Your task to perform on an android device: toggle location history Image 0: 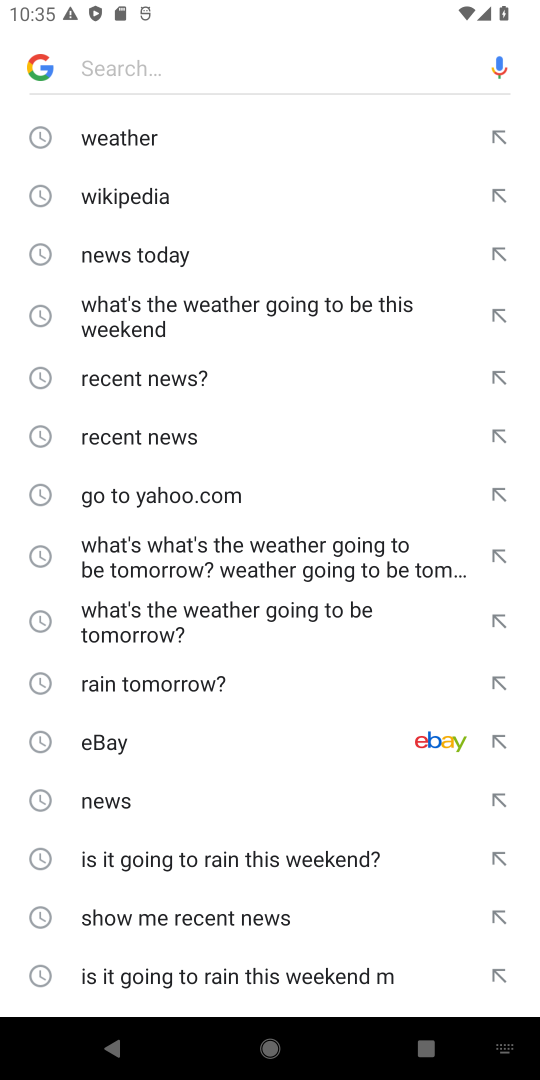
Step 0: press back button
Your task to perform on an android device: toggle location history Image 1: 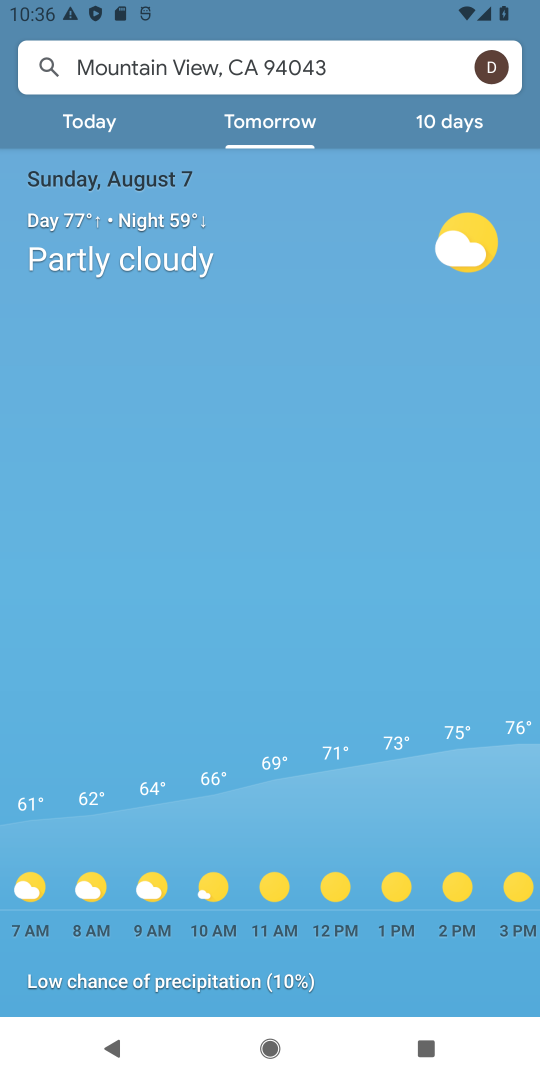
Step 1: press home button
Your task to perform on an android device: toggle location history Image 2: 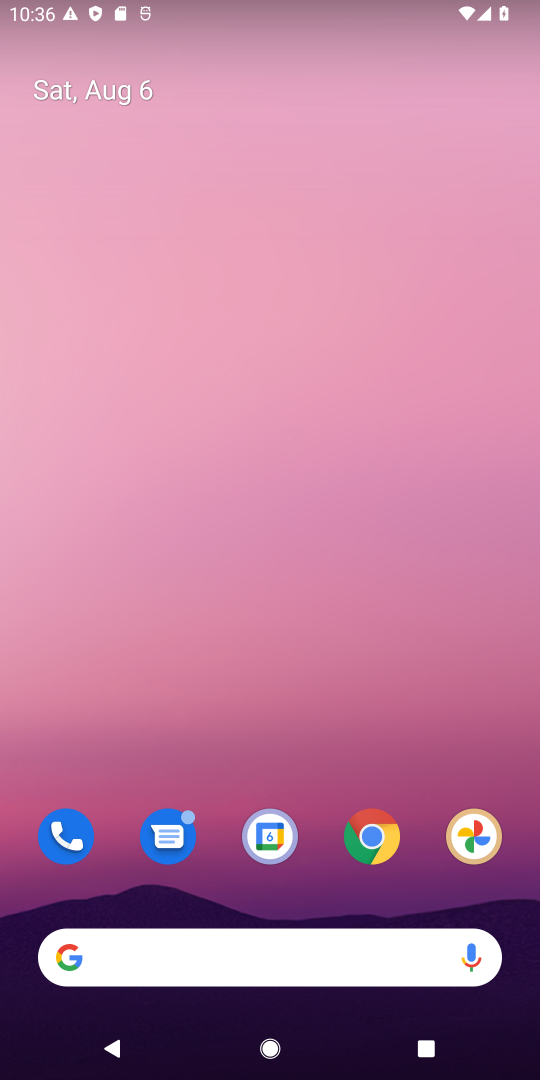
Step 2: drag from (242, 318) to (251, 85)
Your task to perform on an android device: toggle location history Image 3: 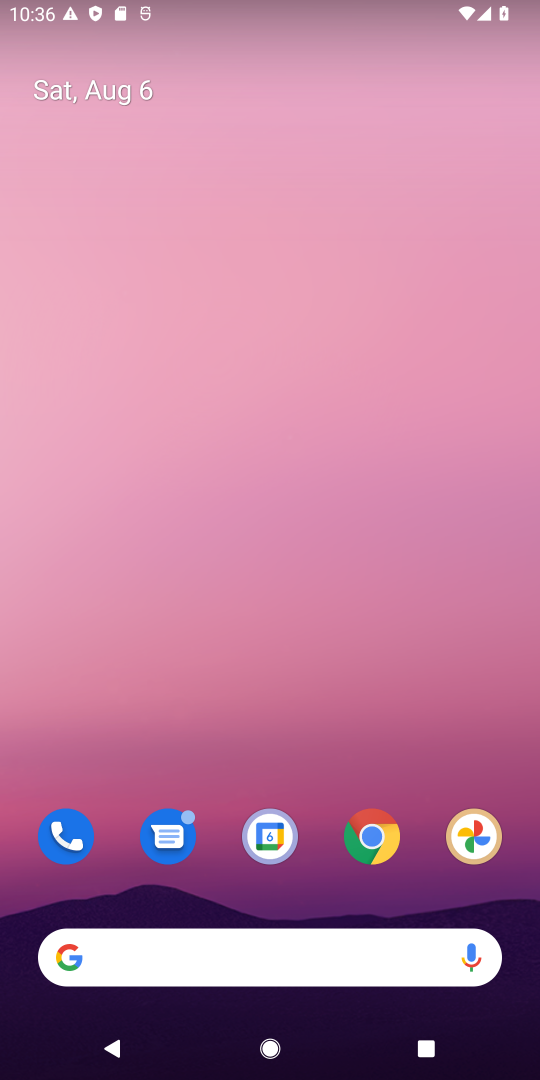
Step 3: drag from (264, 904) to (372, 27)
Your task to perform on an android device: toggle location history Image 4: 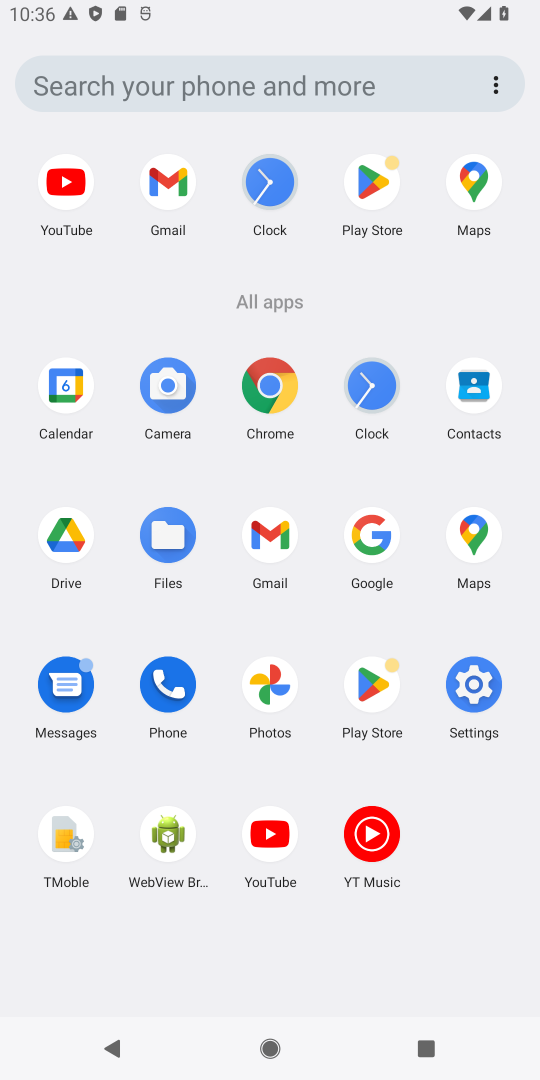
Step 4: click (471, 695)
Your task to perform on an android device: toggle location history Image 5: 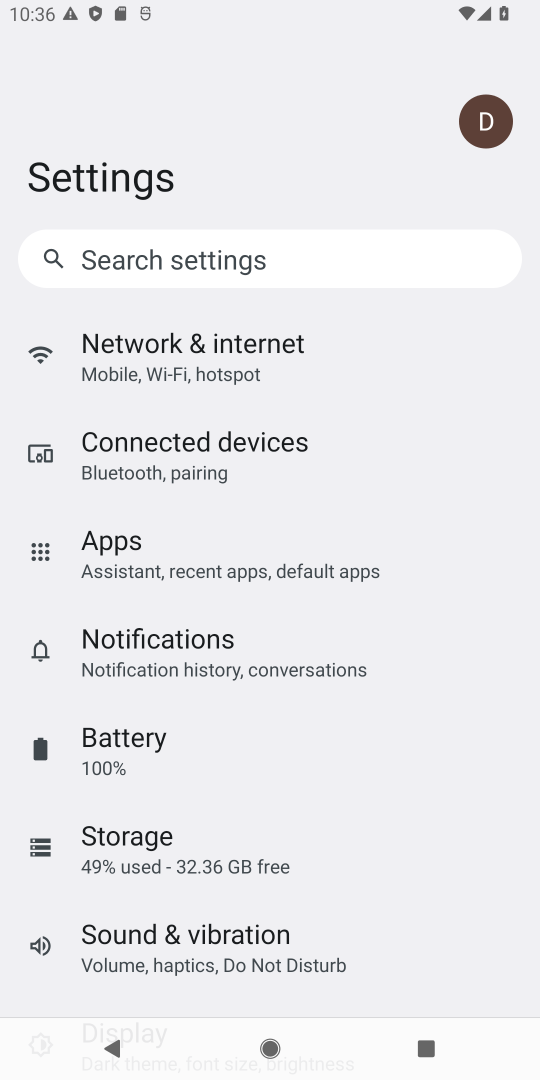
Step 5: drag from (245, 600) to (245, 504)
Your task to perform on an android device: toggle location history Image 6: 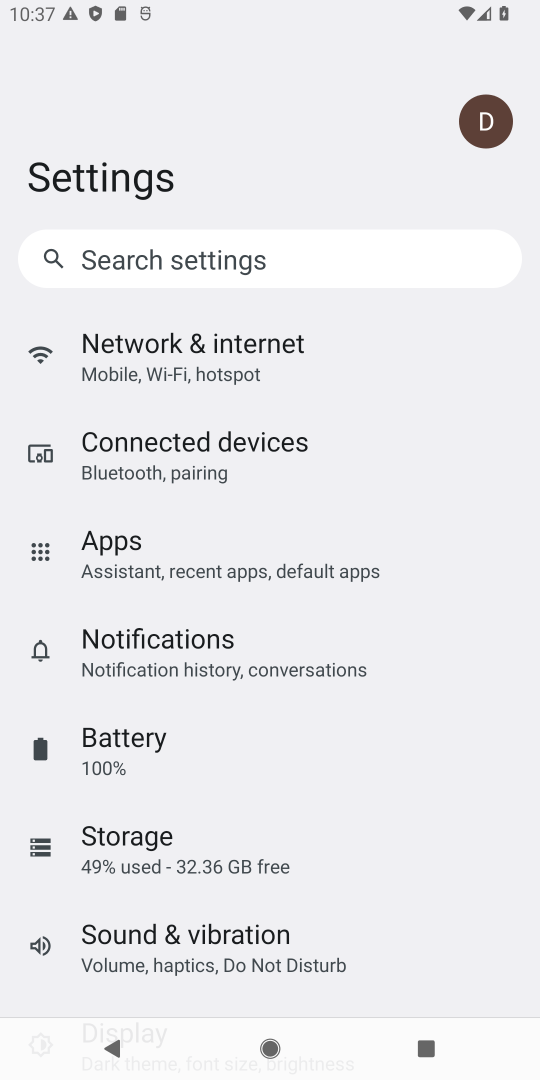
Step 6: drag from (239, 919) to (302, 387)
Your task to perform on an android device: toggle location history Image 7: 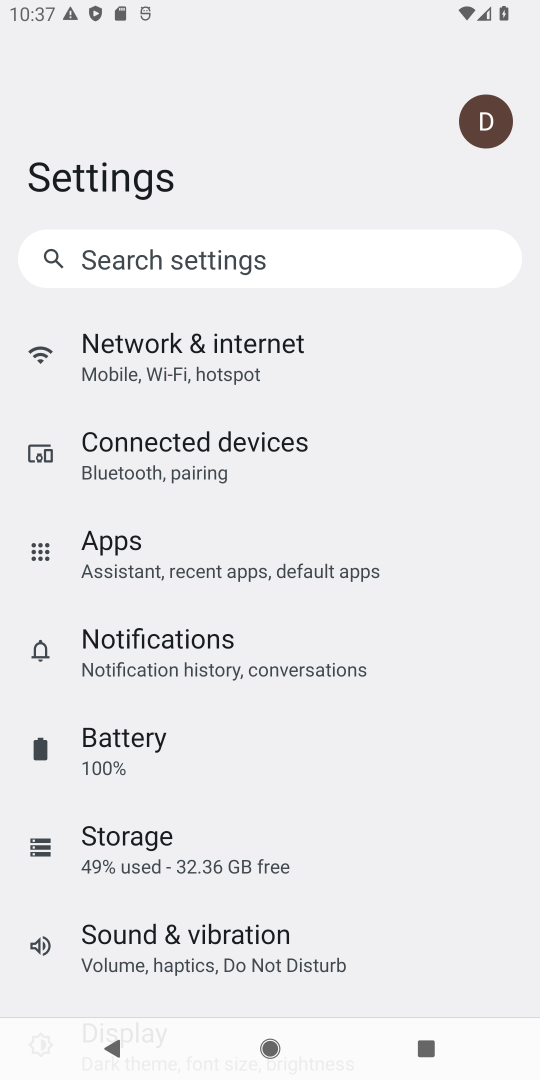
Step 7: drag from (294, 820) to (311, 362)
Your task to perform on an android device: toggle location history Image 8: 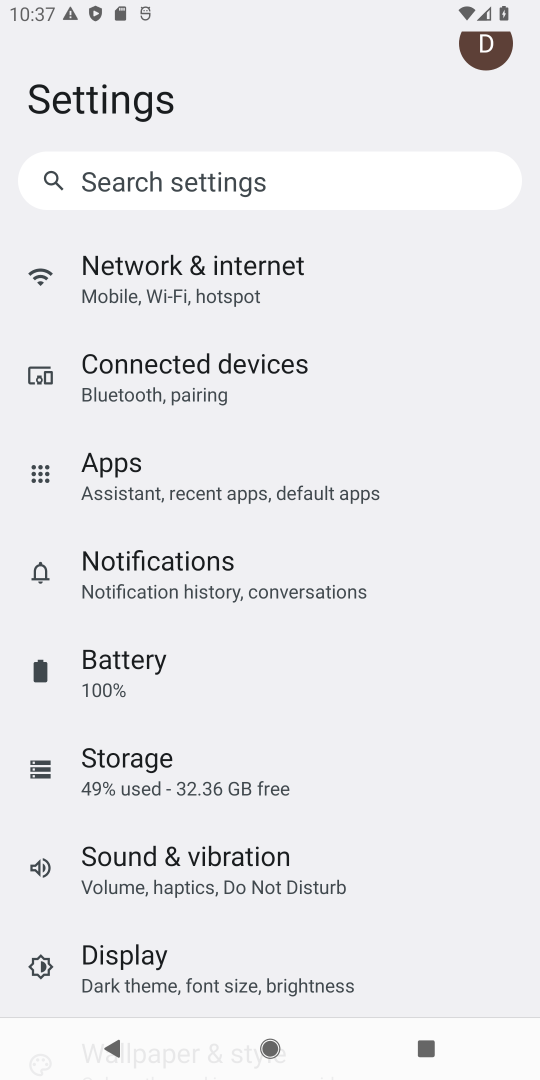
Step 8: drag from (283, 796) to (295, 575)
Your task to perform on an android device: toggle location history Image 9: 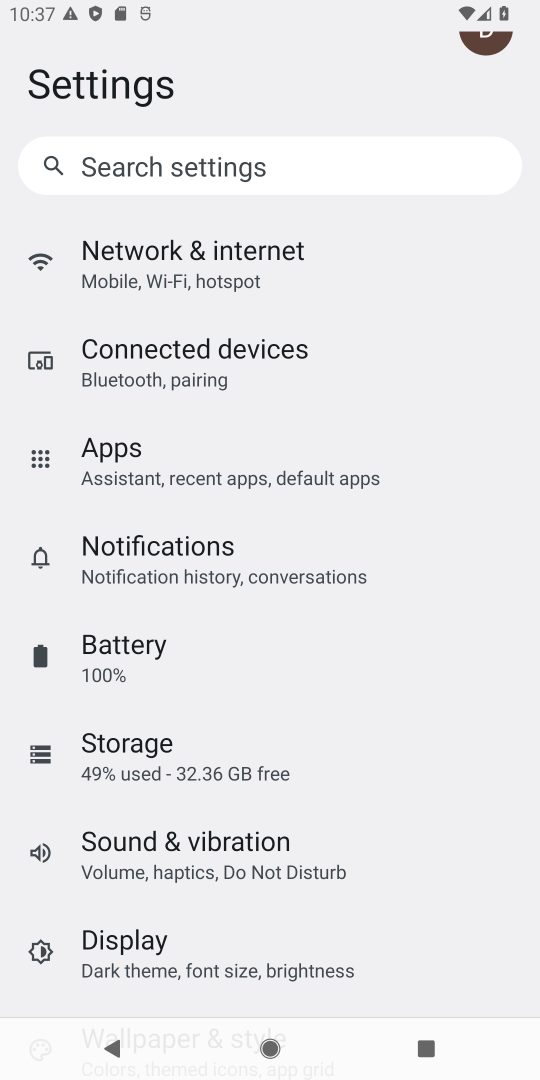
Step 9: drag from (196, 857) to (223, 285)
Your task to perform on an android device: toggle location history Image 10: 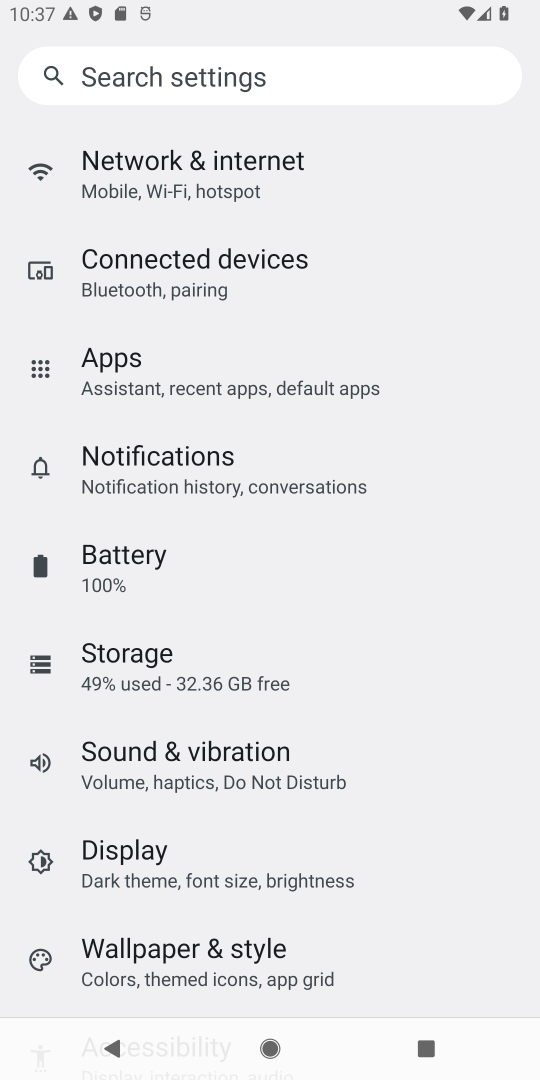
Step 10: drag from (223, 560) to (223, 325)
Your task to perform on an android device: toggle location history Image 11: 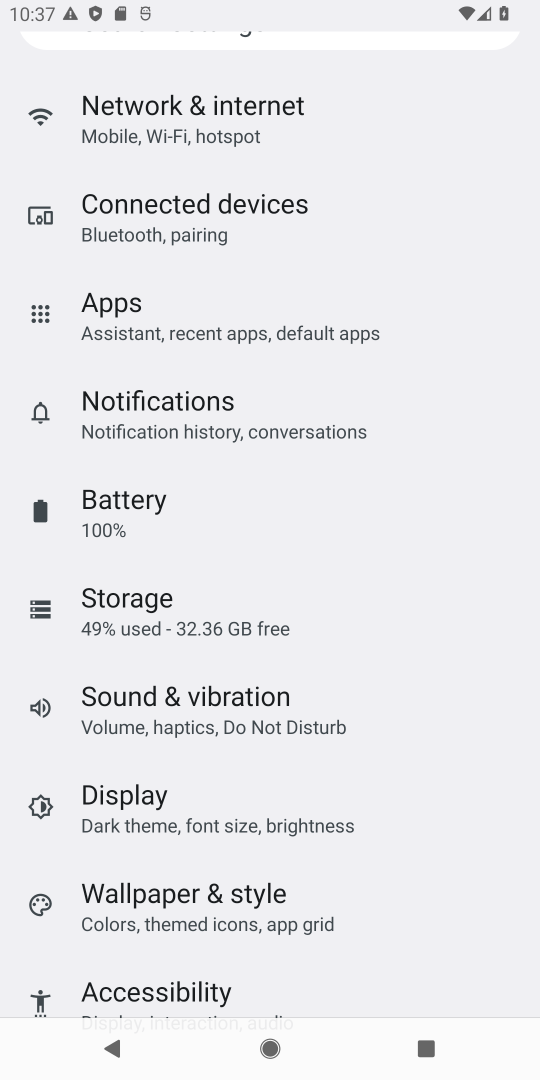
Step 11: drag from (221, 767) to (221, 396)
Your task to perform on an android device: toggle location history Image 12: 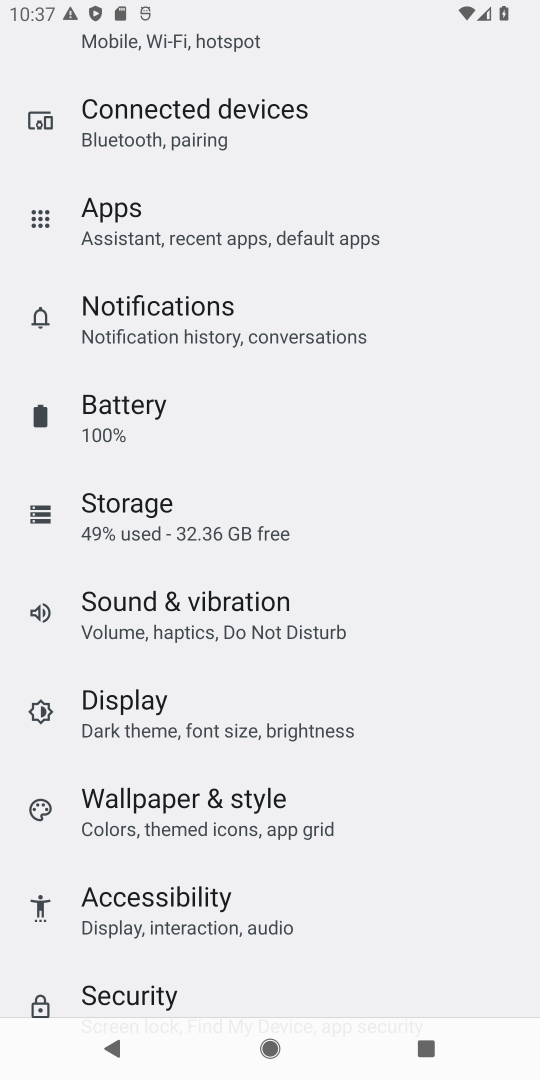
Step 12: drag from (177, 755) to (355, 100)
Your task to perform on an android device: toggle location history Image 13: 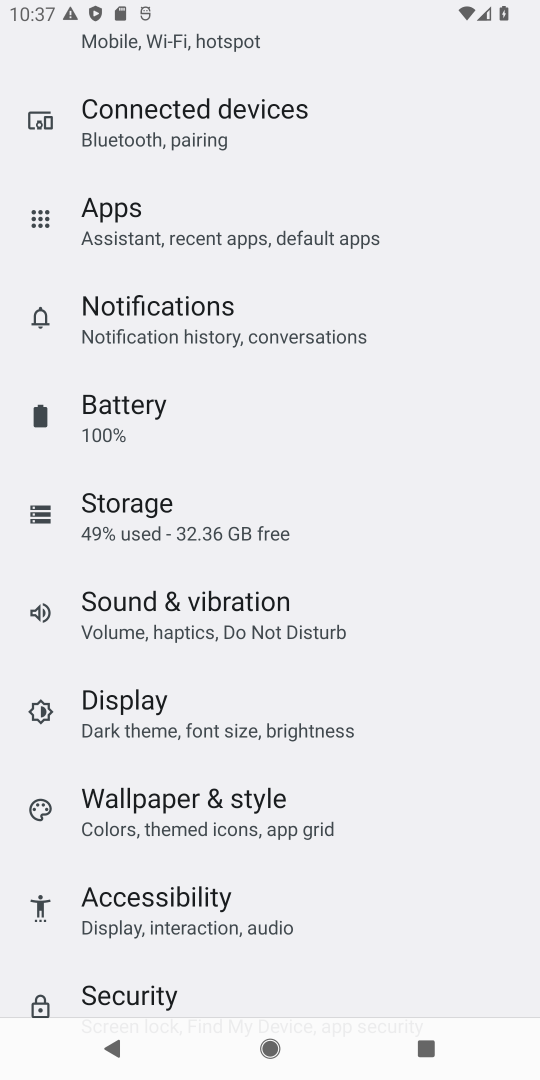
Step 13: drag from (307, 914) to (275, 415)
Your task to perform on an android device: toggle location history Image 14: 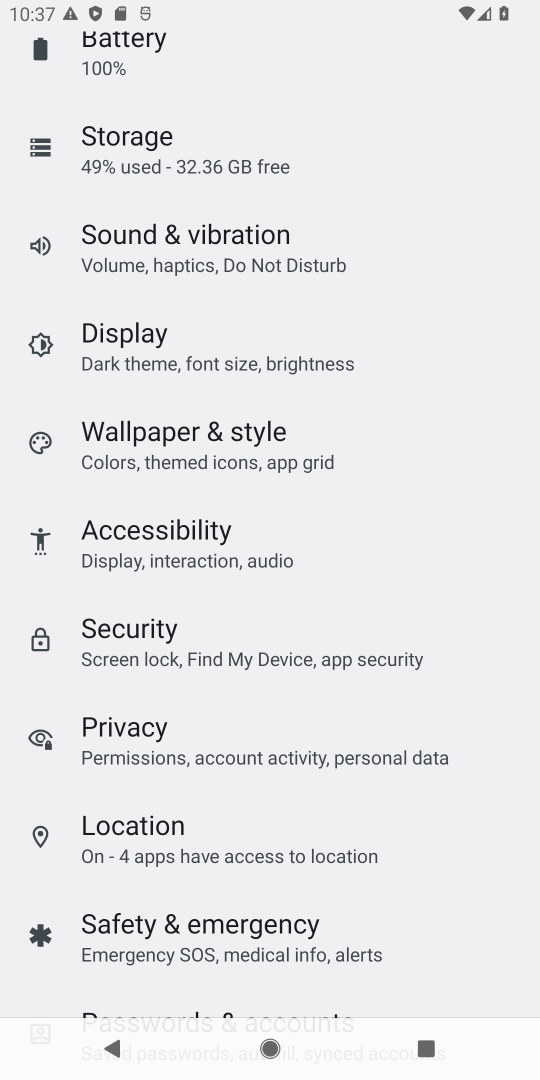
Step 14: click (186, 859)
Your task to perform on an android device: toggle location history Image 15: 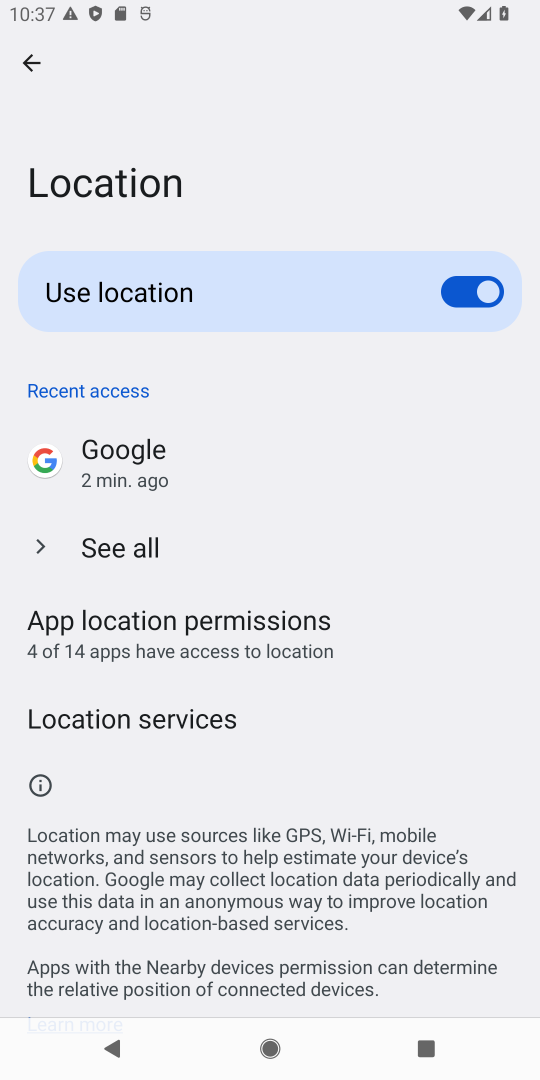
Step 15: click (140, 708)
Your task to perform on an android device: toggle location history Image 16: 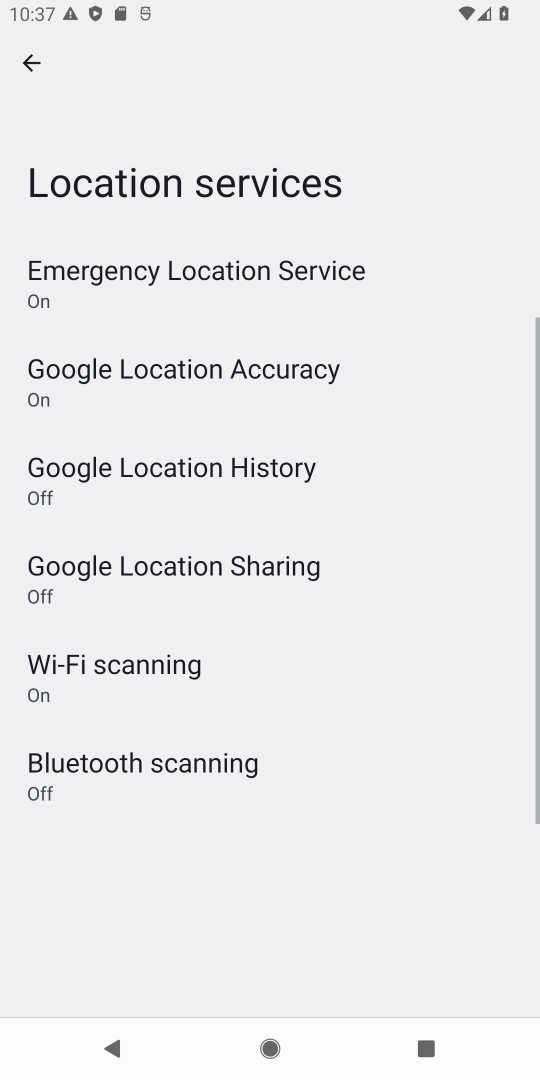
Step 16: click (182, 478)
Your task to perform on an android device: toggle location history Image 17: 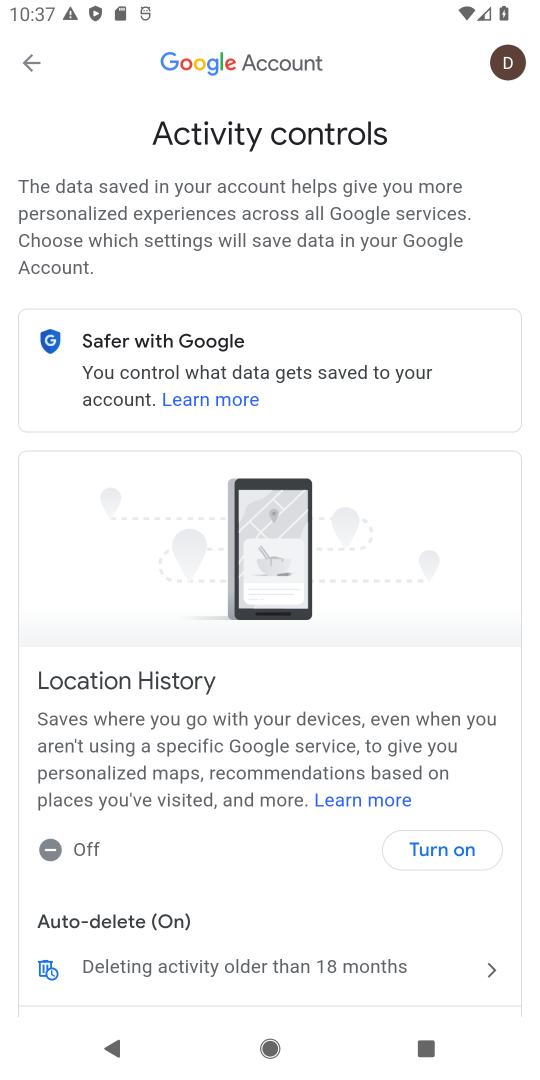
Step 17: click (406, 852)
Your task to perform on an android device: toggle location history Image 18: 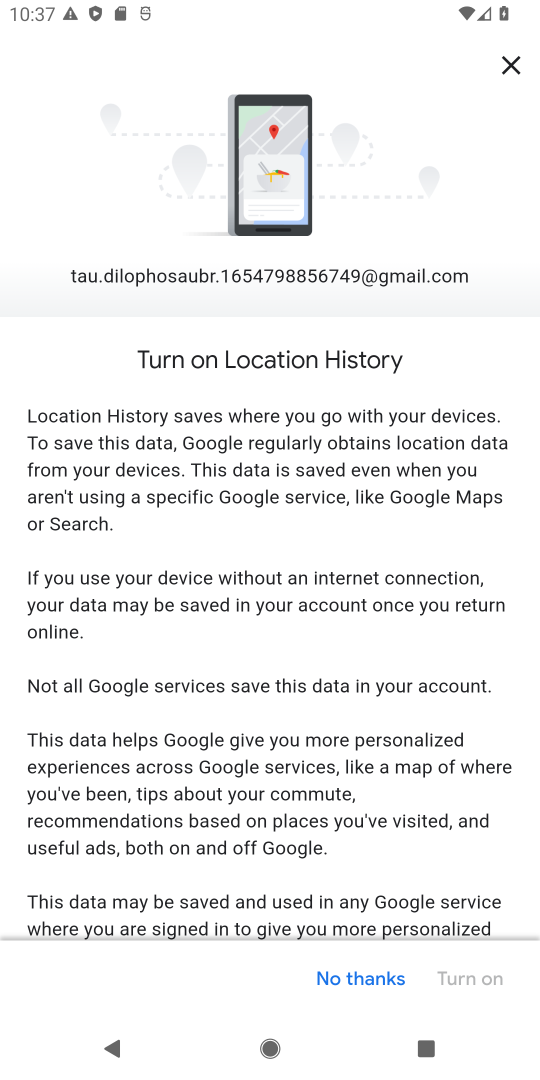
Step 18: drag from (402, 719) to (394, 435)
Your task to perform on an android device: toggle location history Image 19: 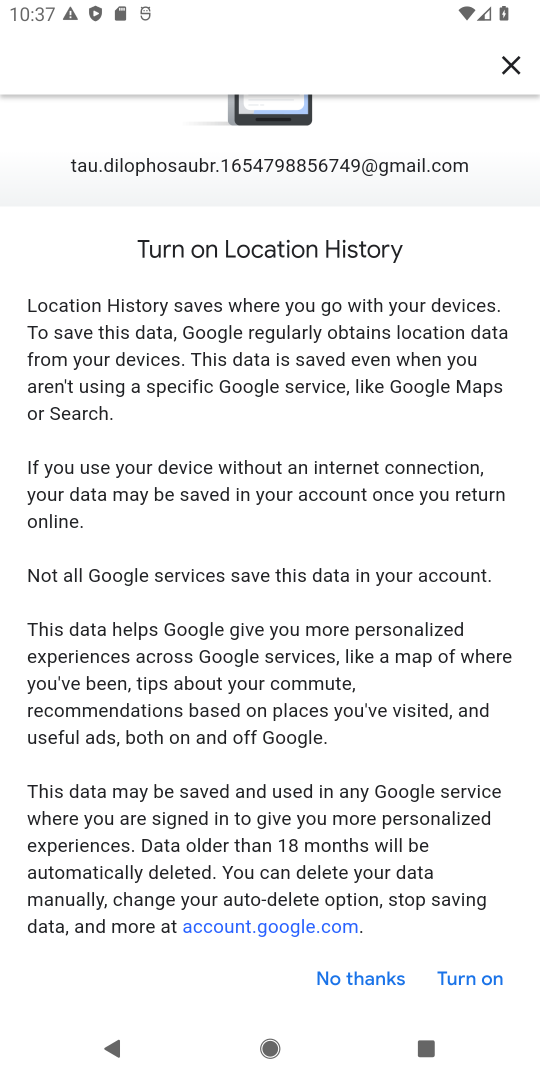
Step 19: click (480, 985)
Your task to perform on an android device: toggle location history Image 20: 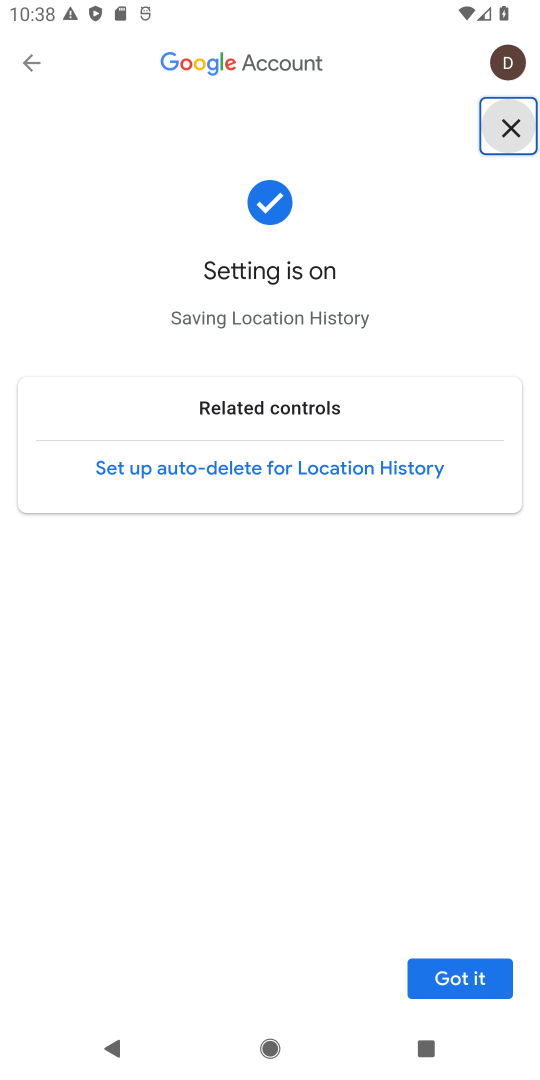
Step 20: click (480, 985)
Your task to perform on an android device: toggle location history Image 21: 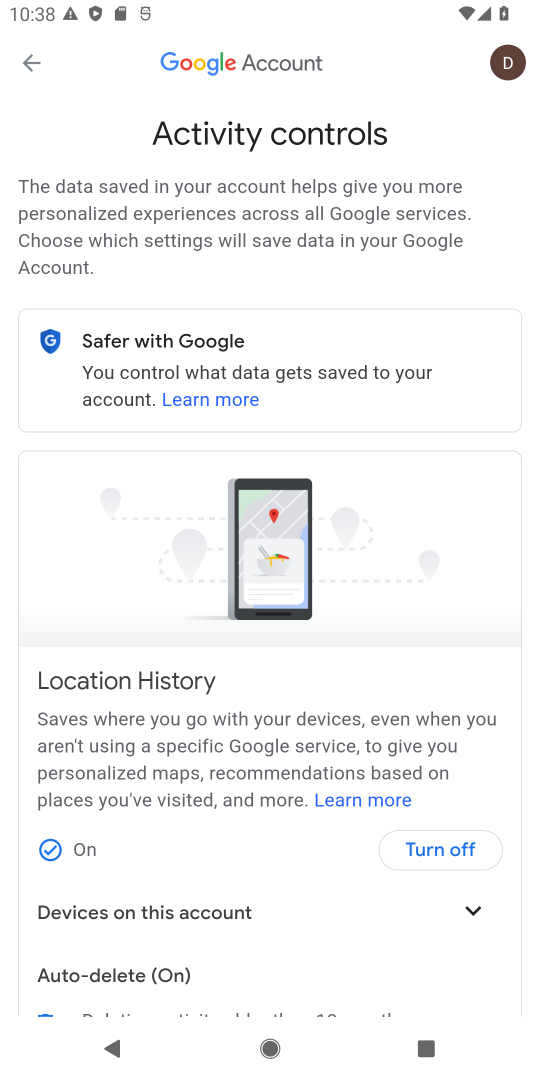
Step 21: task complete